Your task to perform on an android device: allow cookies in the chrome app Image 0: 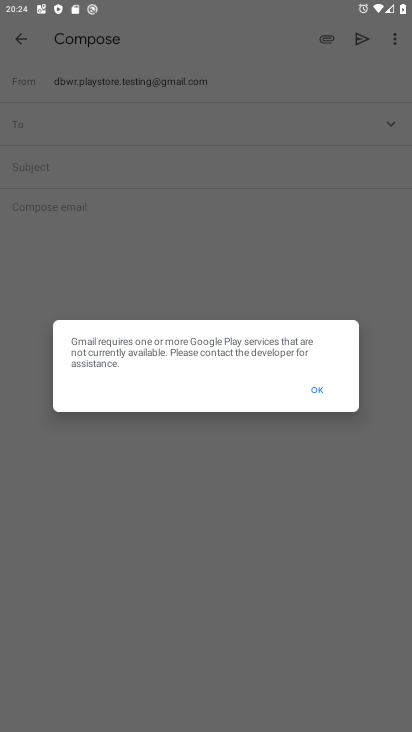
Step 0: press home button
Your task to perform on an android device: allow cookies in the chrome app Image 1: 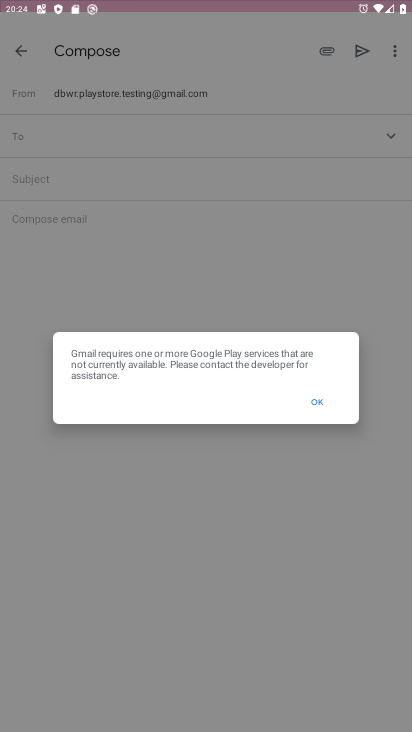
Step 1: drag from (143, 705) to (279, 0)
Your task to perform on an android device: allow cookies in the chrome app Image 2: 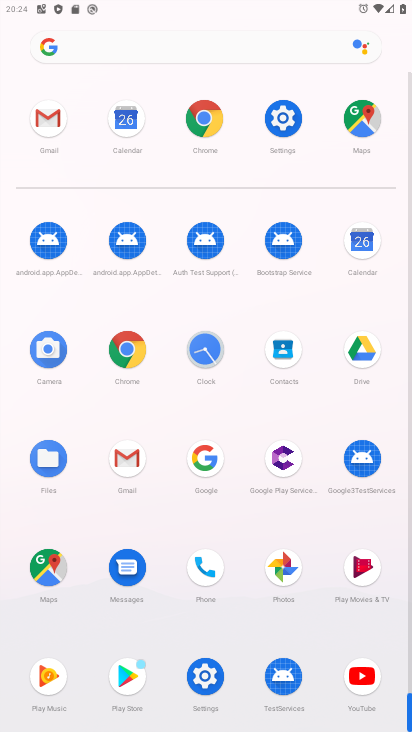
Step 2: click (127, 362)
Your task to perform on an android device: allow cookies in the chrome app Image 3: 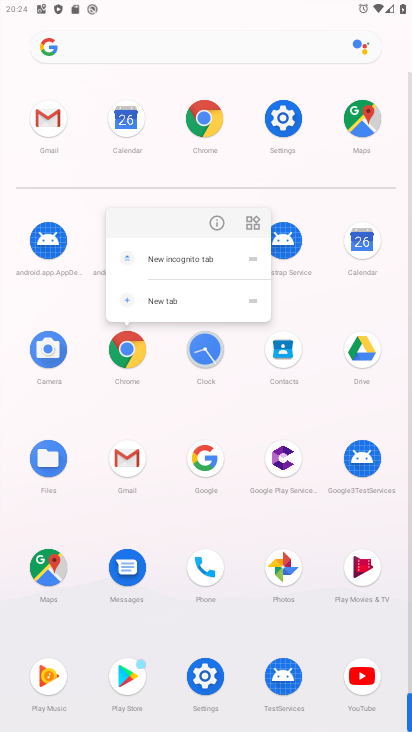
Step 3: click (220, 231)
Your task to perform on an android device: allow cookies in the chrome app Image 4: 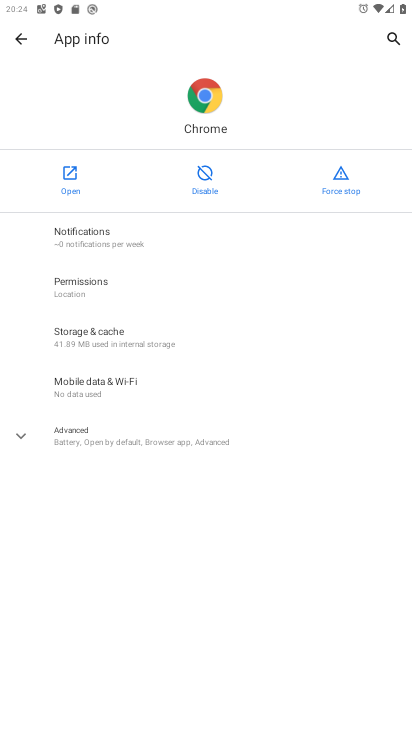
Step 4: click (63, 175)
Your task to perform on an android device: allow cookies in the chrome app Image 5: 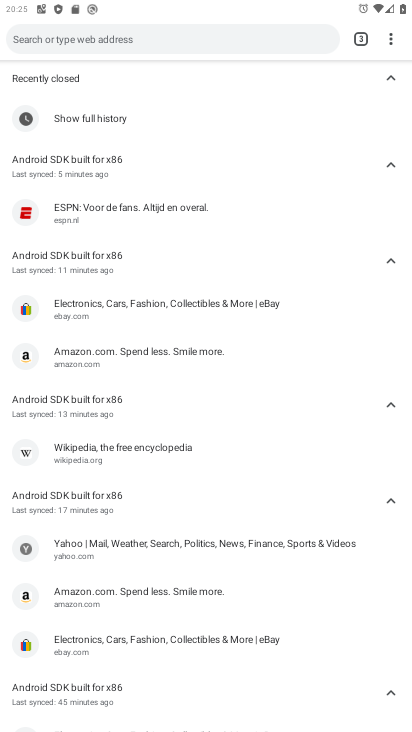
Step 5: drag from (395, 40) to (386, 104)
Your task to perform on an android device: allow cookies in the chrome app Image 6: 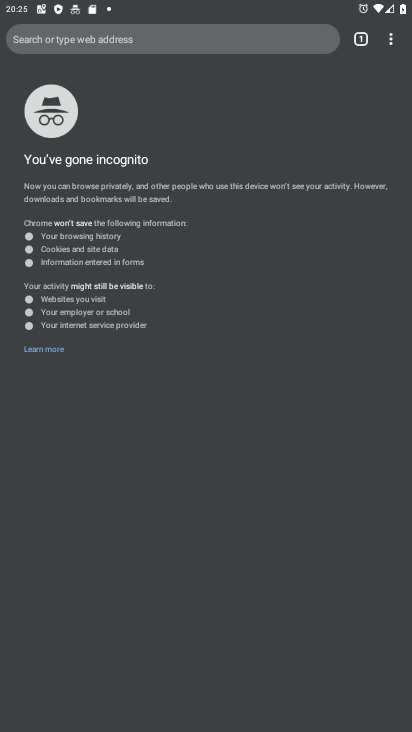
Step 6: click (391, 34)
Your task to perform on an android device: allow cookies in the chrome app Image 7: 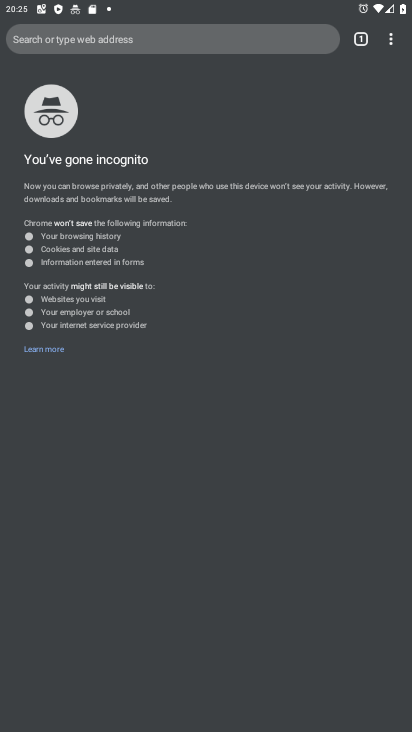
Step 7: click (367, 27)
Your task to perform on an android device: allow cookies in the chrome app Image 8: 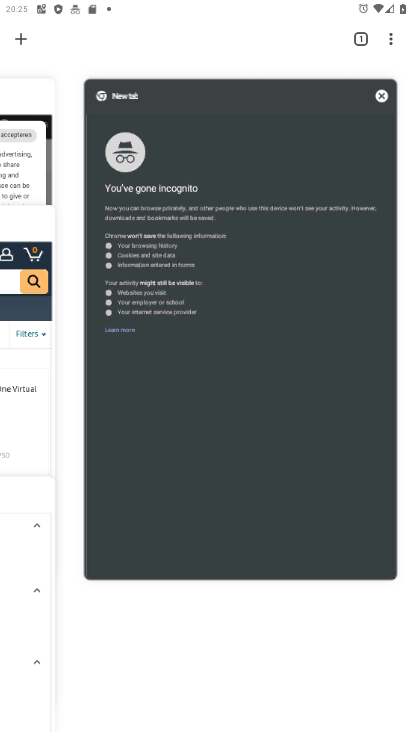
Step 8: click (383, 96)
Your task to perform on an android device: allow cookies in the chrome app Image 9: 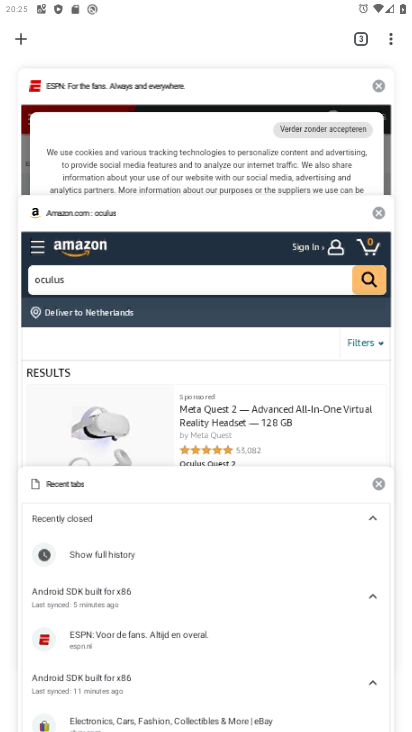
Step 9: click (302, 156)
Your task to perform on an android device: allow cookies in the chrome app Image 10: 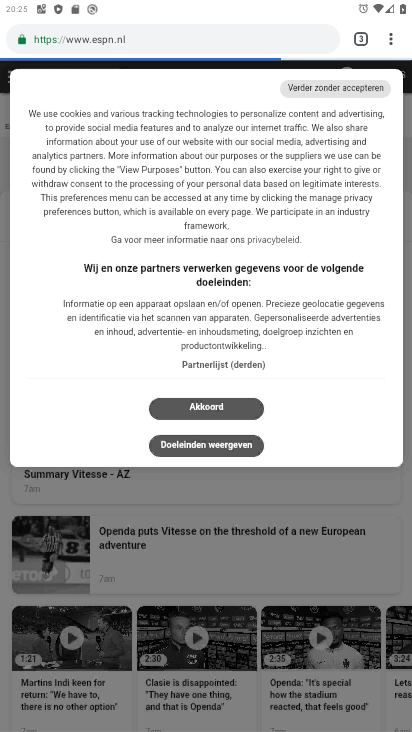
Step 10: drag from (389, 41) to (286, 430)
Your task to perform on an android device: allow cookies in the chrome app Image 11: 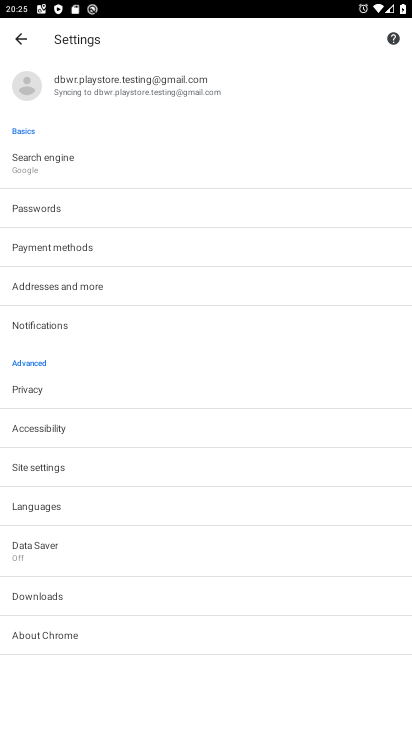
Step 11: click (47, 470)
Your task to perform on an android device: allow cookies in the chrome app Image 12: 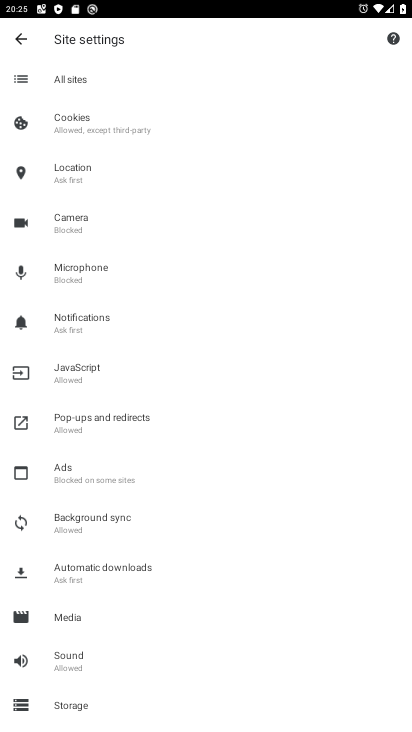
Step 12: drag from (167, 598) to (270, 256)
Your task to perform on an android device: allow cookies in the chrome app Image 13: 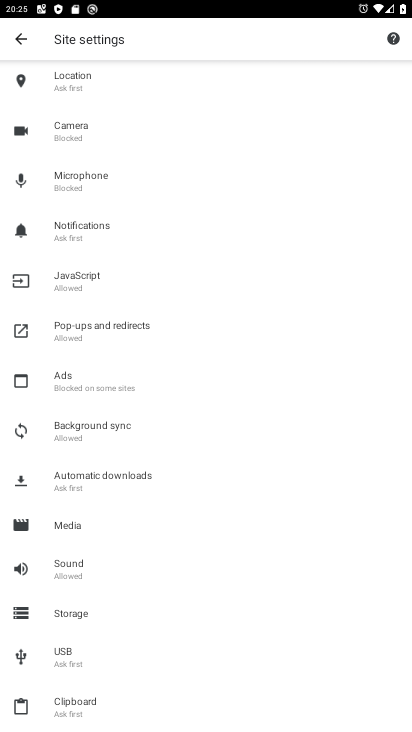
Step 13: drag from (156, 606) to (215, 360)
Your task to perform on an android device: allow cookies in the chrome app Image 14: 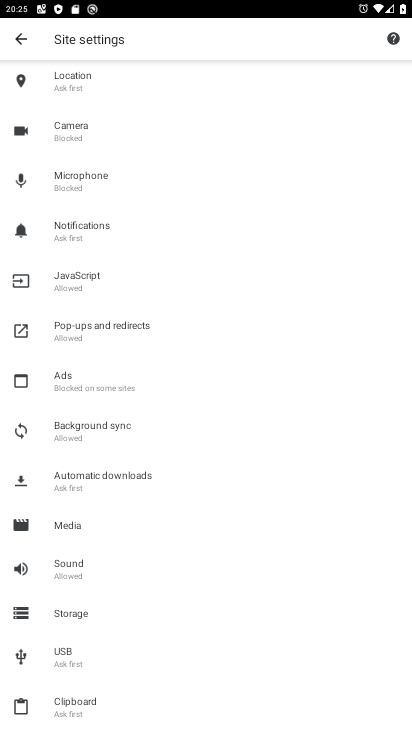
Step 14: drag from (152, 668) to (221, 286)
Your task to perform on an android device: allow cookies in the chrome app Image 15: 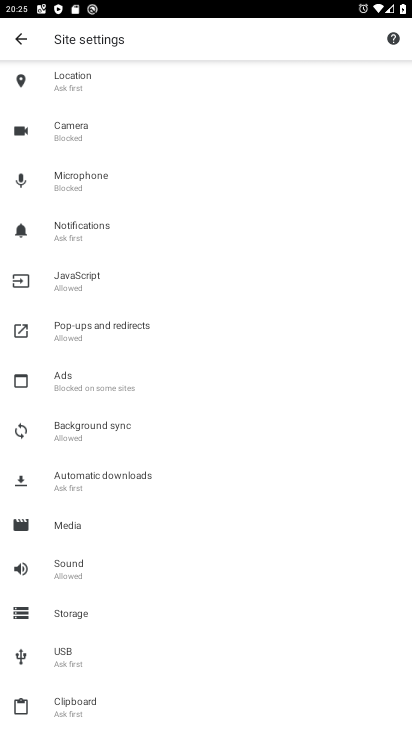
Step 15: drag from (249, 584) to (224, 152)
Your task to perform on an android device: allow cookies in the chrome app Image 16: 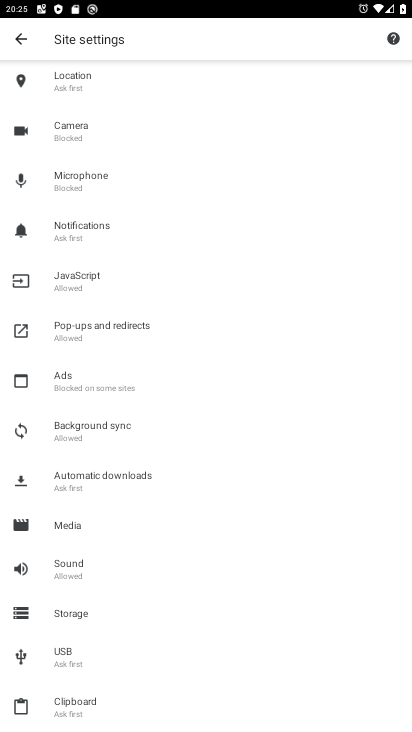
Step 16: drag from (236, 158) to (196, 719)
Your task to perform on an android device: allow cookies in the chrome app Image 17: 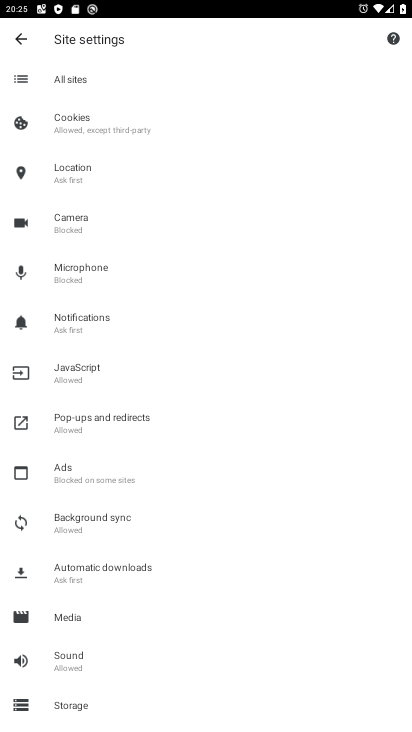
Step 17: drag from (137, 136) to (206, 490)
Your task to perform on an android device: allow cookies in the chrome app Image 18: 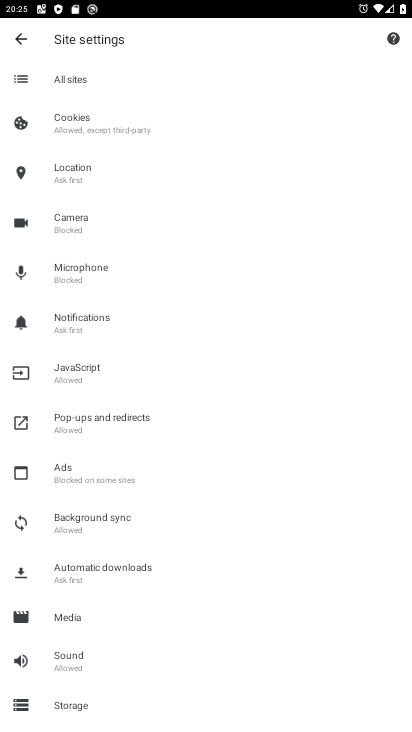
Step 18: click (117, 108)
Your task to perform on an android device: allow cookies in the chrome app Image 19: 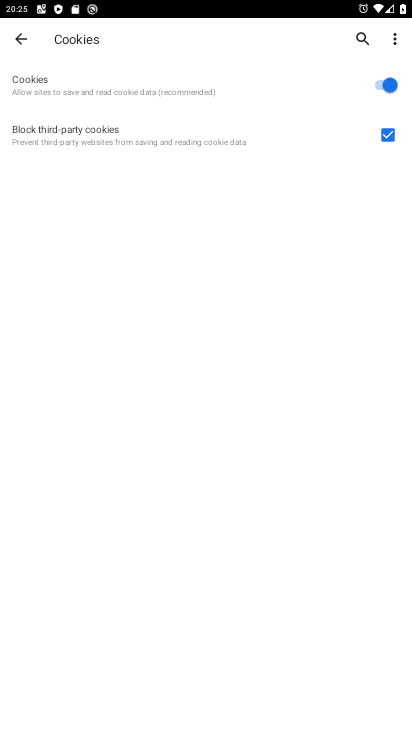
Step 19: task complete